Your task to perform on an android device: Go to privacy settings Image 0: 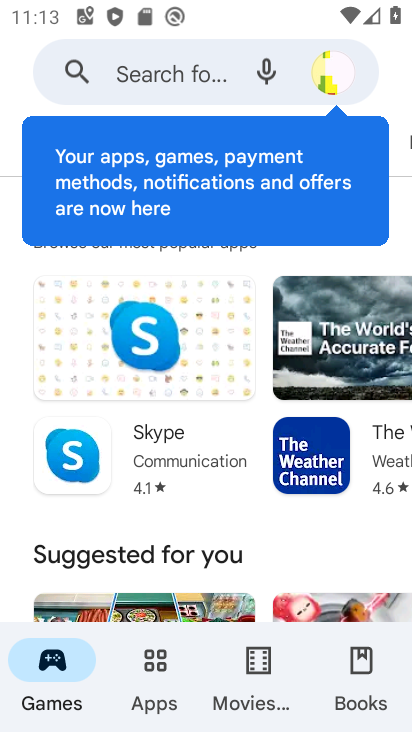
Step 0: press home button
Your task to perform on an android device: Go to privacy settings Image 1: 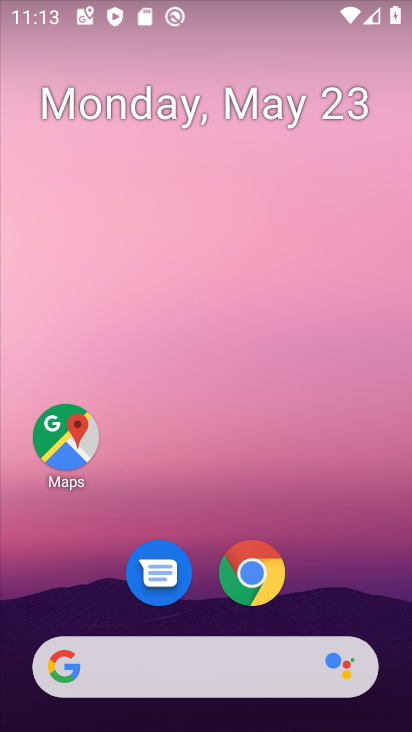
Step 1: drag from (374, 598) to (382, 225)
Your task to perform on an android device: Go to privacy settings Image 2: 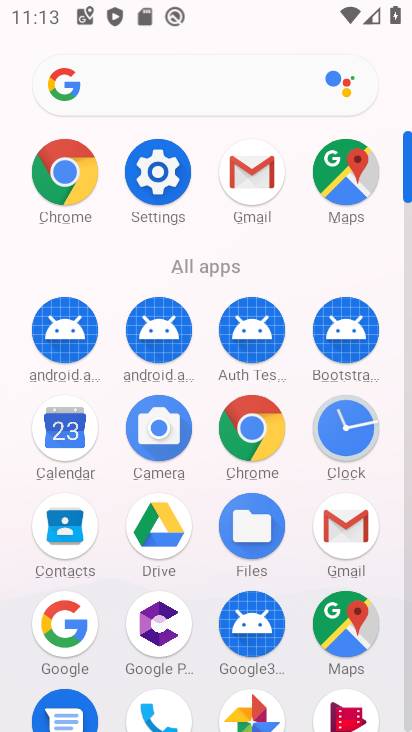
Step 2: click (181, 171)
Your task to perform on an android device: Go to privacy settings Image 3: 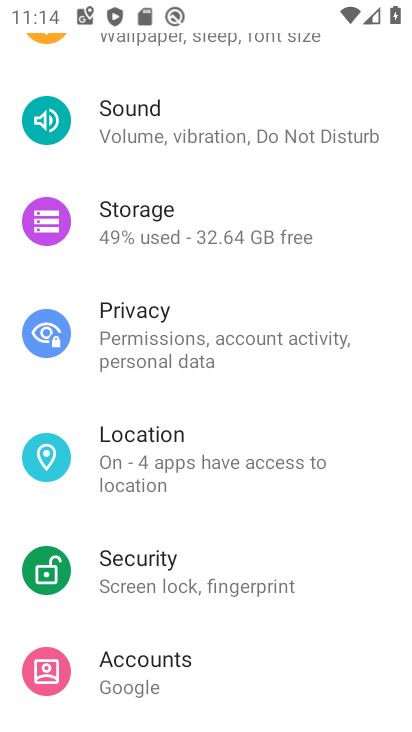
Step 3: drag from (325, 540) to (354, 355)
Your task to perform on an android device: Go to privacy settings Image 4: 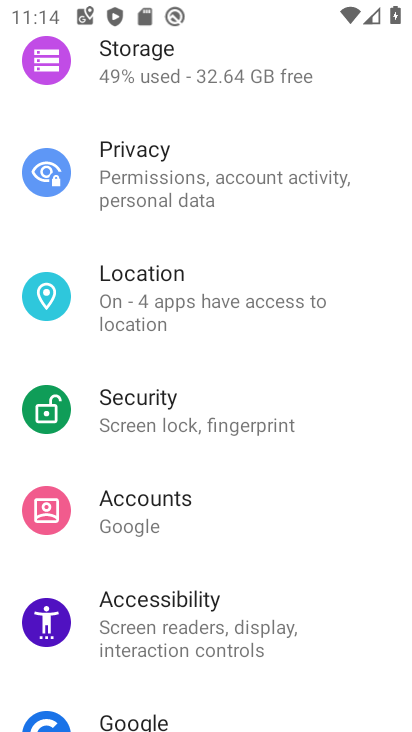
Step 4: drag from (332, 575) to (347, 380)
Your task to perform on an android device: Go to privacy settings Image 5: 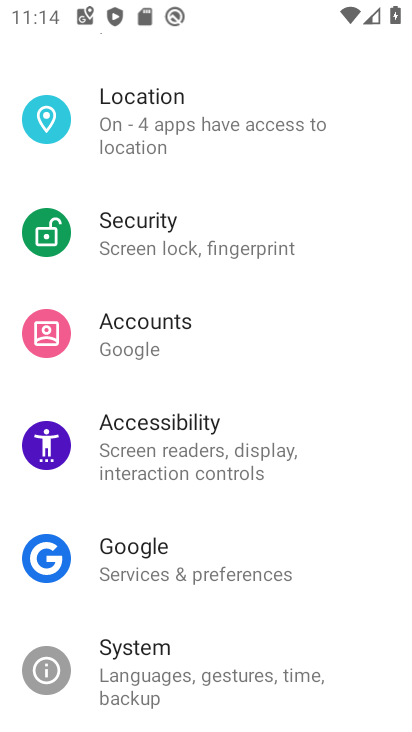
Step 5: drag from (335, 606) to (339, 410)
Your task to perform on an android device: Go to privacy settings Image 6: 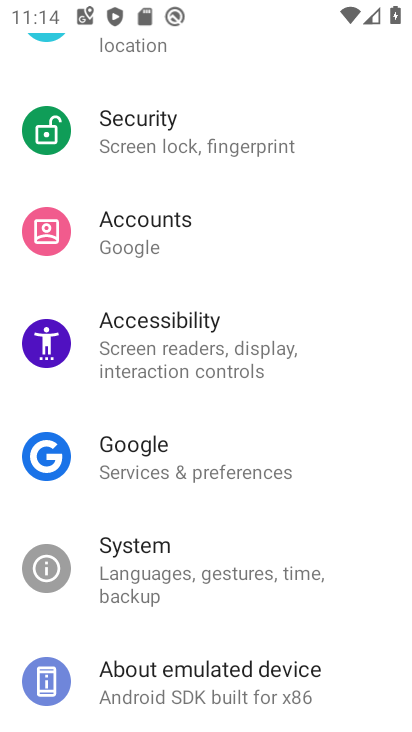
Step 6: drag from (348, 614) to (335, 451)
Your task to perform on an android device: Go to privacy settings Image 7: 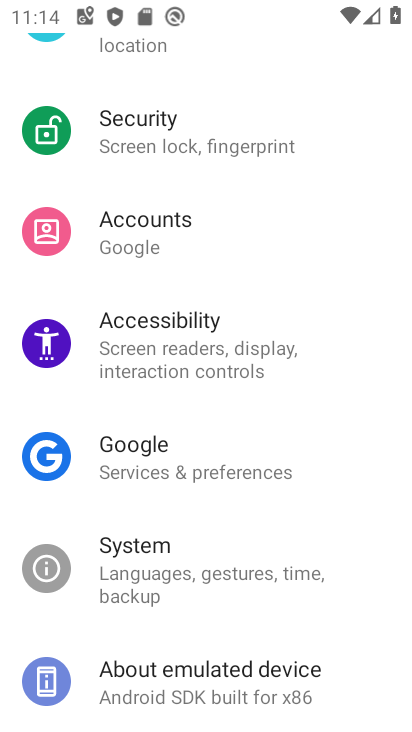
Step 7: drag from (352, 275) to (362, 414)
Your task to perform on an android device: Go to privacy settings Image 8: 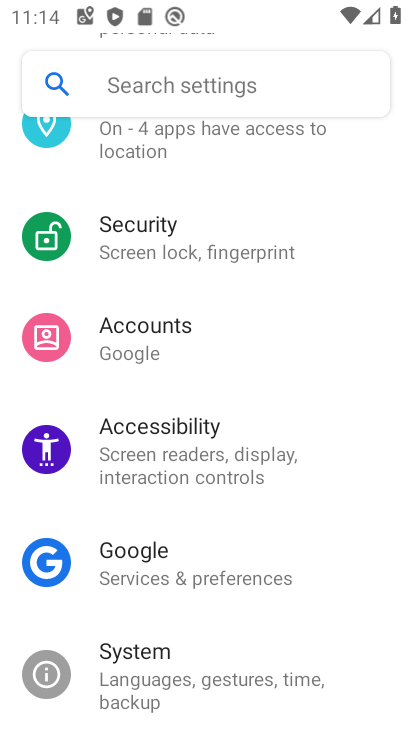
Step 8: drag from (343, 253) to (331, 387)
Your task to perform on an android device: Go to privacy settings Image 9: 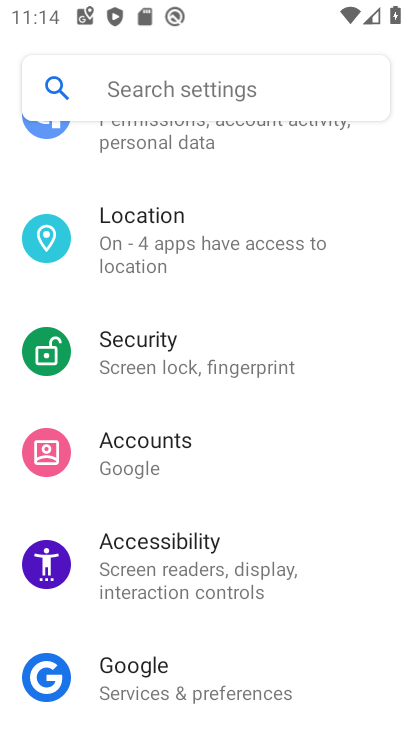
Step 9: drag from (347, 197) to (336, 381)
Your task to perform on an android device: Go to privacy settings Image 10: 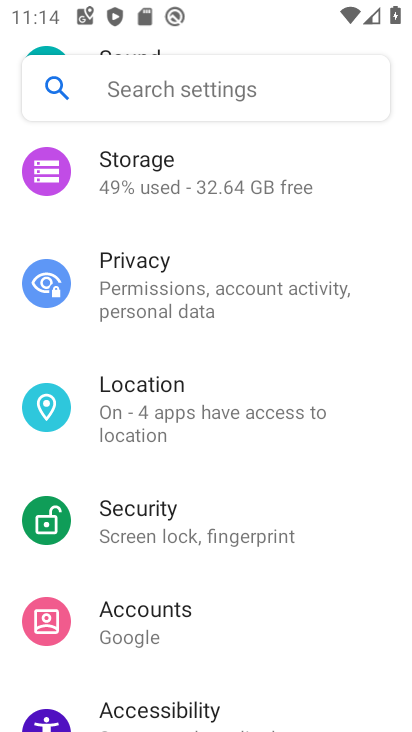
Step 10: click (291, 268)
Your task to perform on an android device: Go to privacy settings Image 11: 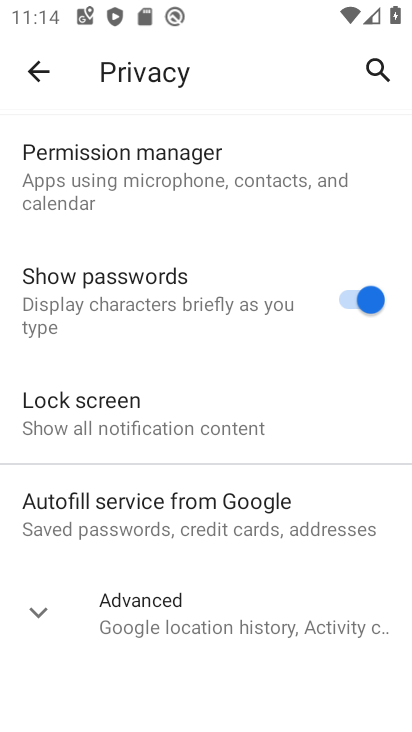
Step 11: task complete